Your task to perform on an android device: Check the weather Image 0: 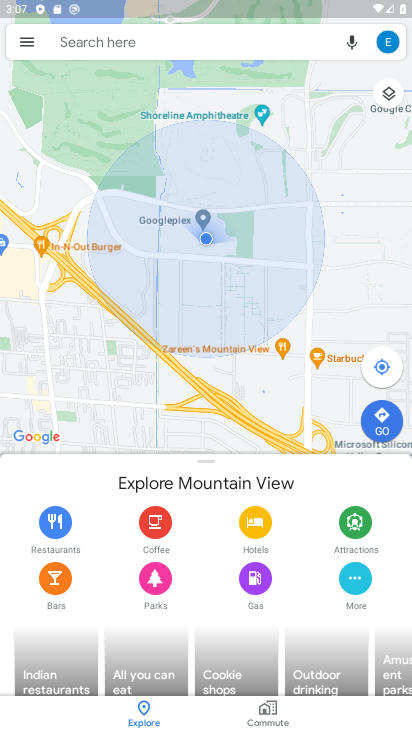
Step 0: press home button
Your task to perform on an android device: Check the weather Image 1: 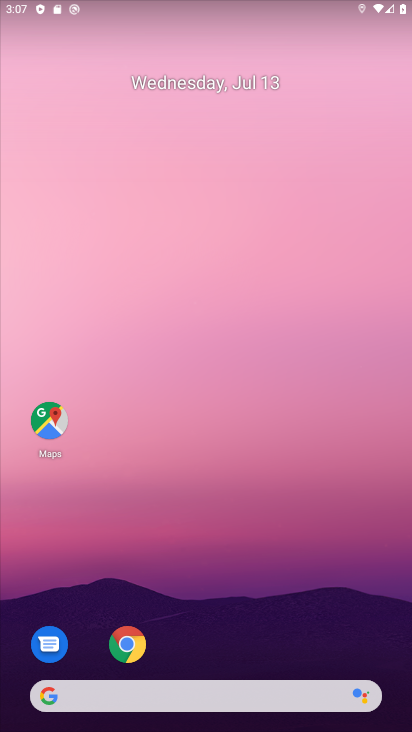
Step 1: click (152, 696)
Your task to perform on an android device: Check the weather Image 2: 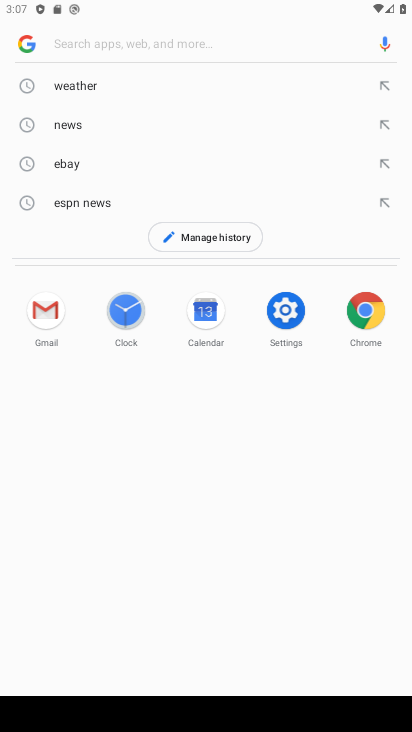
Step 2: click (68, 79)
Your task to perform on an android device: Check the weather Image 3: 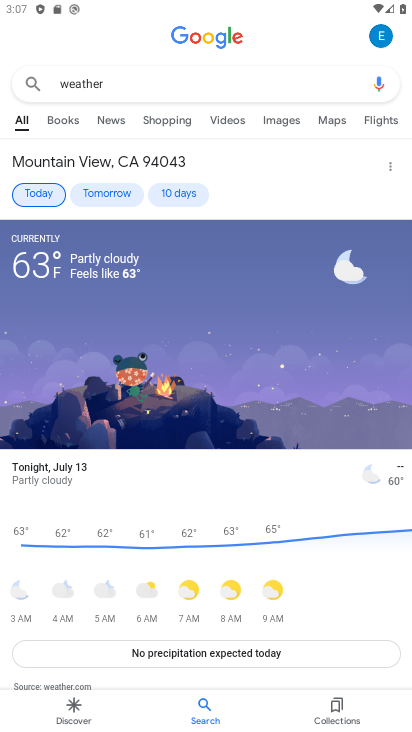
Step 3: click (68, 79)
Your task to perform on an android device: Check the weather Image 4: 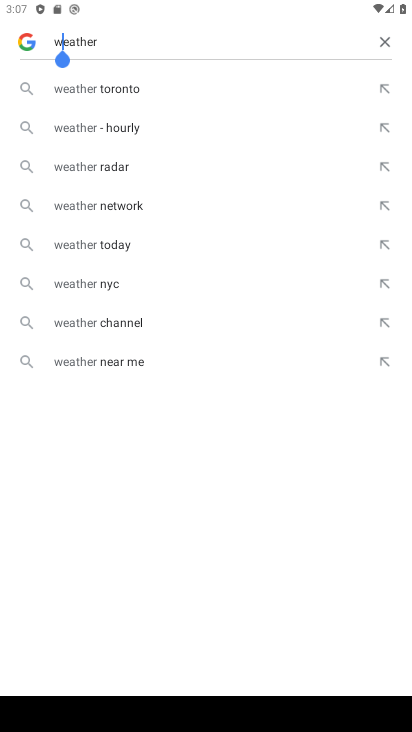
Step 4: task complete